Your task to perform on an android device: toggle notification dots Image 0: 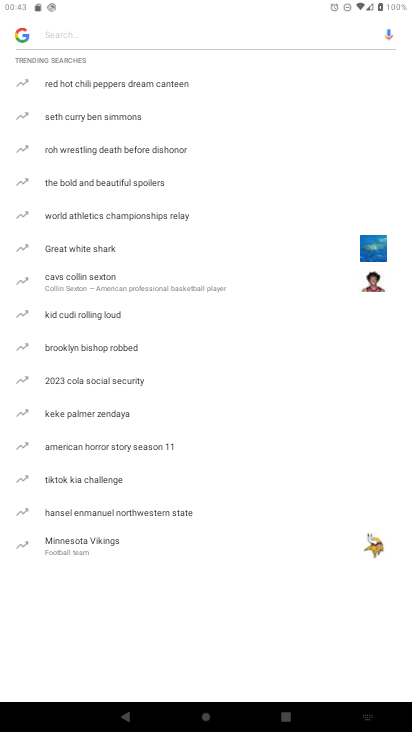
Step 0: drag from (199, 403) to (307, 71)
Your task to perform on an android device: toggle notification dots Image 1: 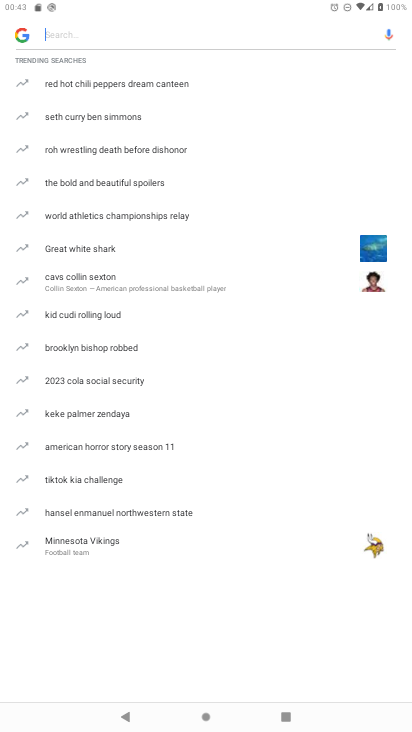
Step 1: press home button
Your task to perform on an android device: toggle notification dots Image 2: 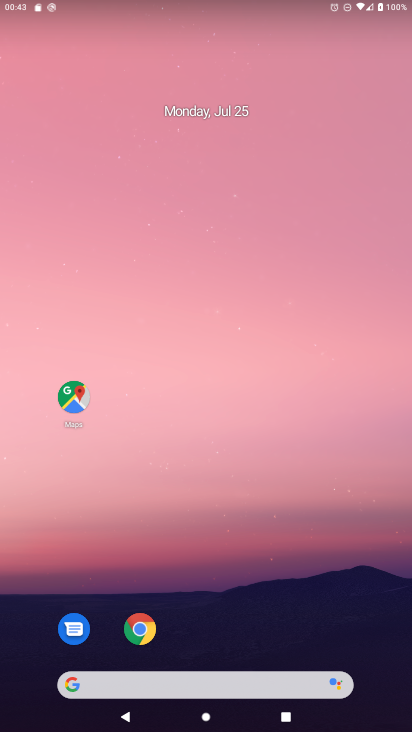
Step 2: drag from (173, 613) to (238, 223)
Your task to perform on an android device: toggle notification dots Image 3: 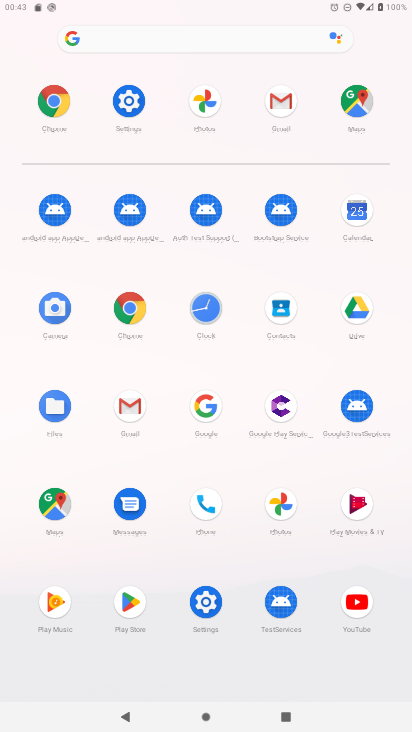
Step 3: click (214, 587)
Your task to perform on an android device: toggle notification dots Image 4: 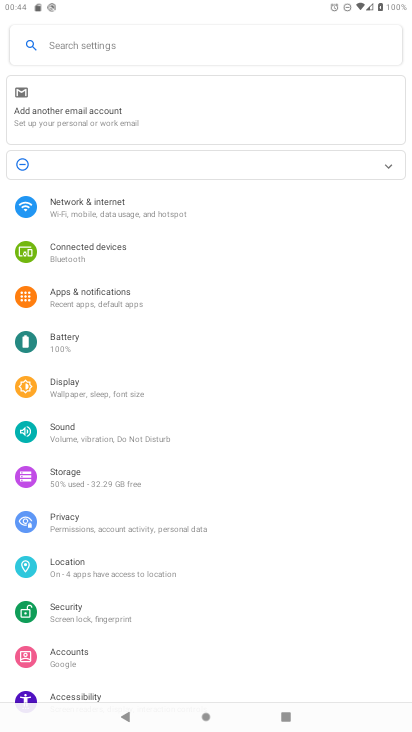
Step 4: click (126, 300)
Your task to perform on an android device: toggle notification dots Image 5: 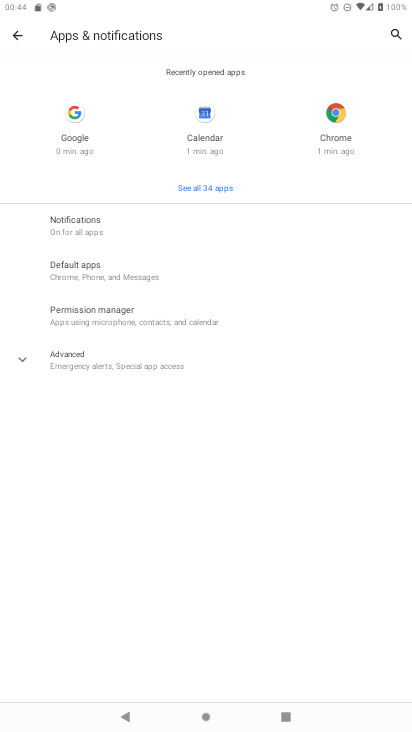
Step 5: click (119, 367)
Your task to perform on an android device: toggle notification dots Image 6: 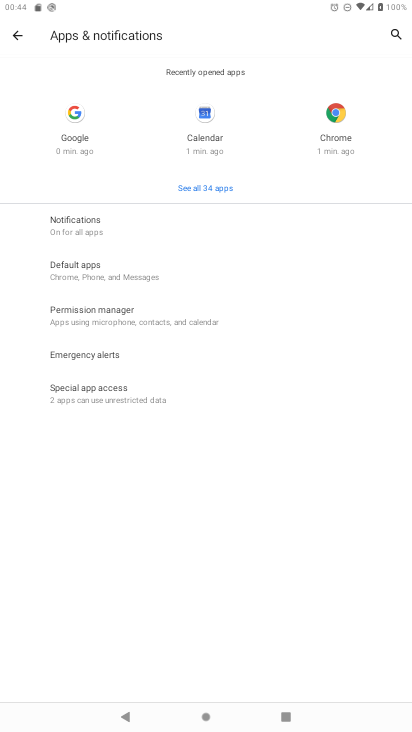
Step 6: click (113, 218)
Your task to perform on an android device: toggle notification dots Image 7: 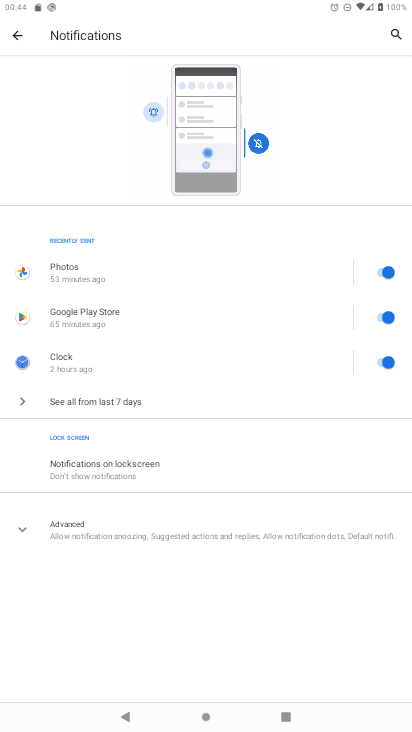
Step 7: click (136, 533)
Your task to perform on an android device: toggle notification dots Image 8: 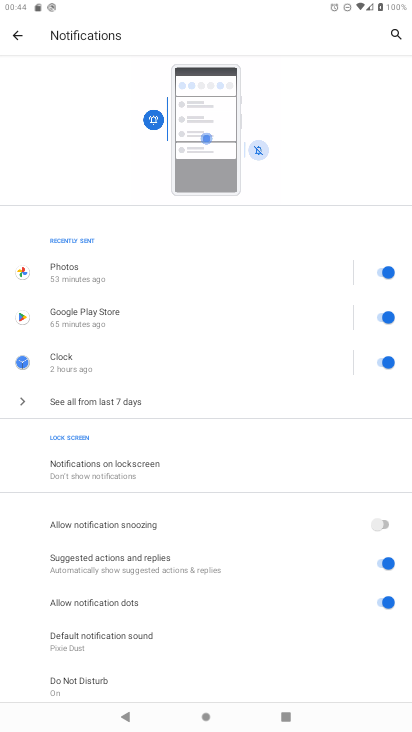
Step 8: click (376, 593)
Your task to perform on an android device: toggle notification dots Image 9: 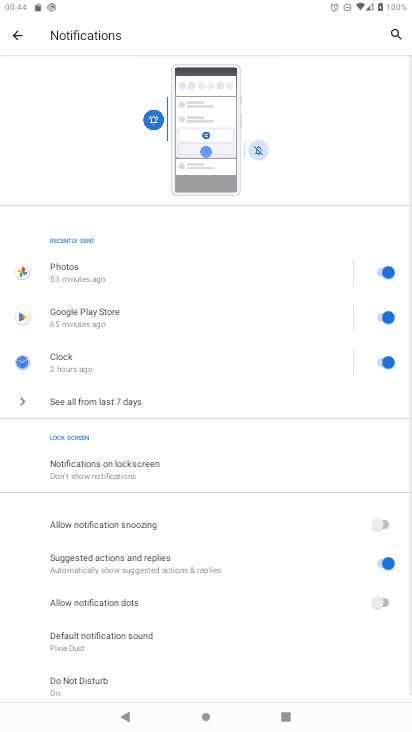
Step 9: task complete